Your task to perform on an android device: Open display settings Image 0: 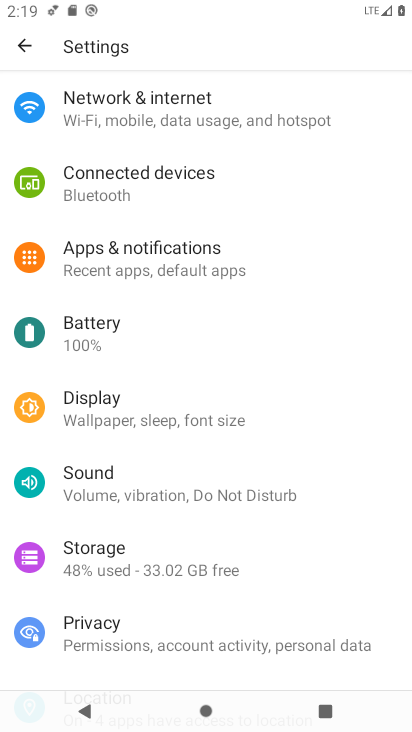
Step 0: click (146, 411)
Your task to perform on an android device: Open display settings Image 1: 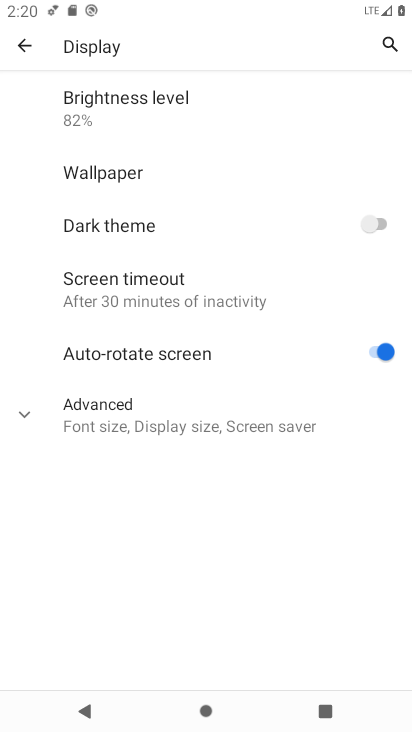
Step 1: task complete